Your task to perform on an android device: Open internet settings Image 0: 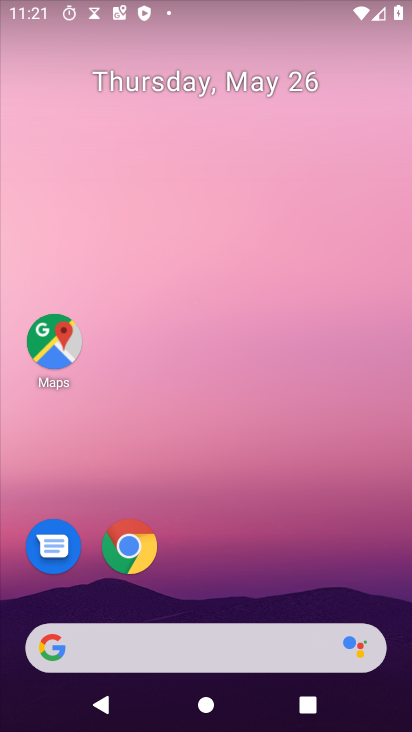
Step 0: drag from (399, 539) to (347, 129)
Your task to perform on an android device: Open internet settings Image 1: 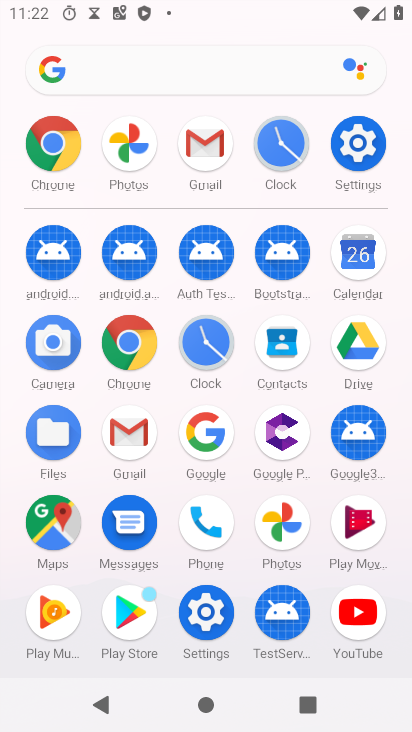
Step 1: click (214, 622)
Your task to perform on an android device: Open internet settings Image 2: 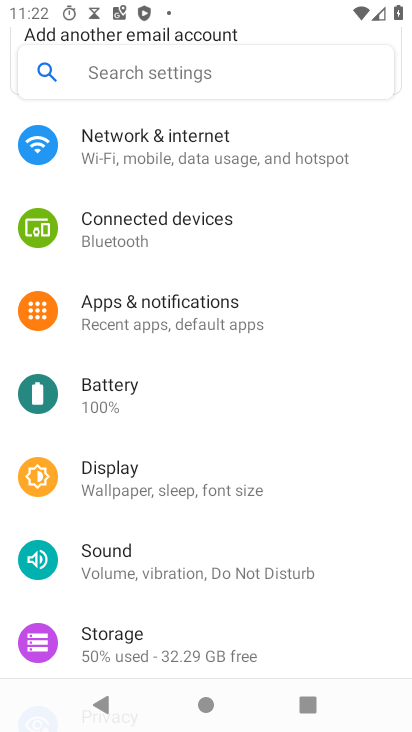
Step 2: click (210, 143)
Your task to perform on an android device: Open internet settings Image 3: 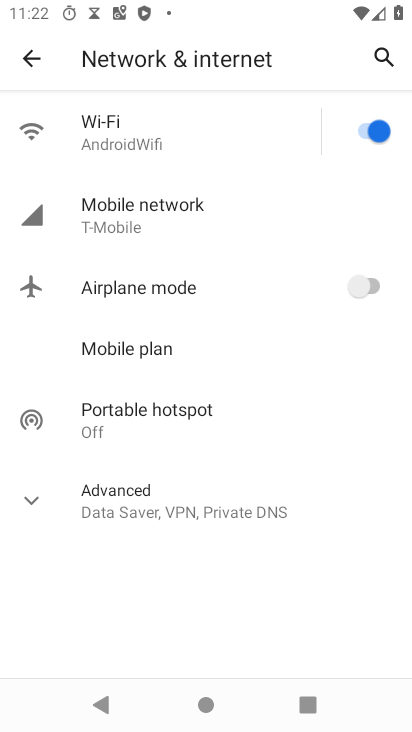
Step 3: click (183, 226)
Your task to perform on an android device: Open internet settings Image 4: 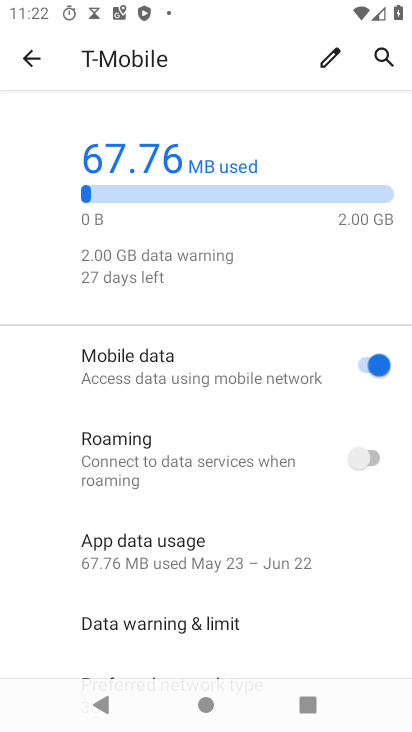
Step 4: task complete